Your task to perform on an android device: add a contact Image 0: 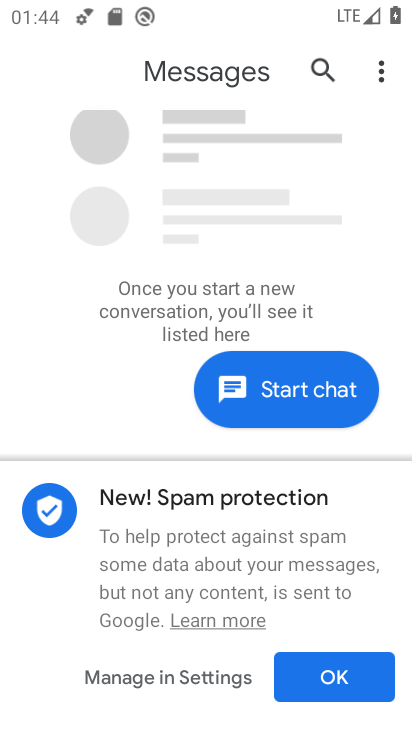
Step 0: press home button
Your task to perform on an android device: add a contact Image 1: 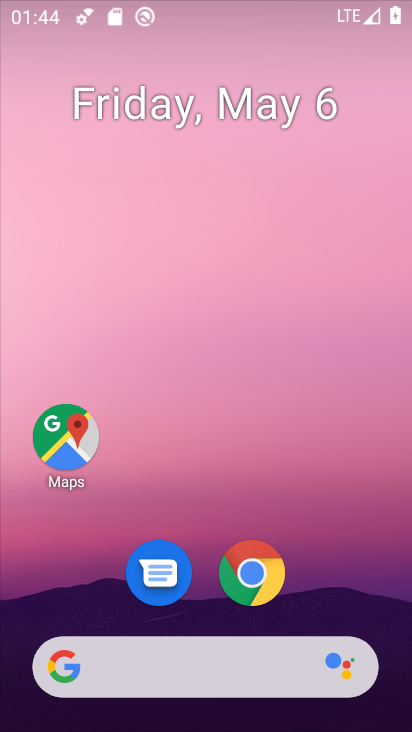
Step 1: drag from (299, 597) to (299, 241)
Your task to perform on an android device: add a contact Image 2: 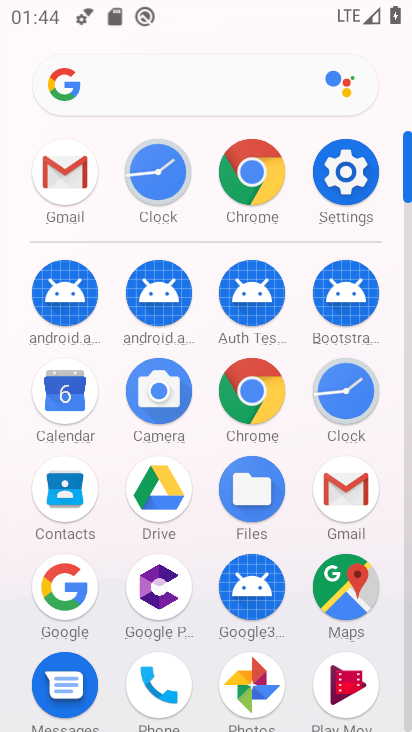
Step 2: click (149, 685)
Your task to perform on an android device: add a contact Image 3: 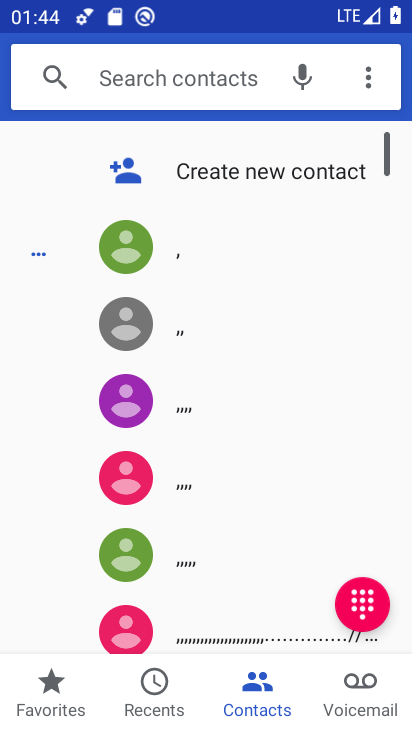
Step 3: click (246, 169)
Your task to perform on an android device: add a contact Image 4: 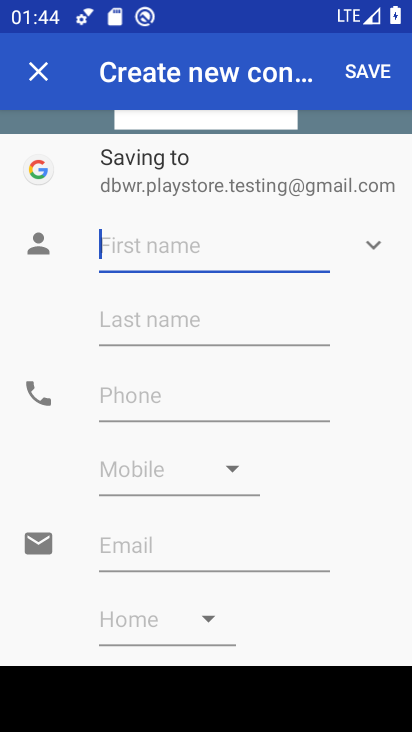
Step 4: click (195, 247)
Your task to perform on an android device: add a contact Image 5: 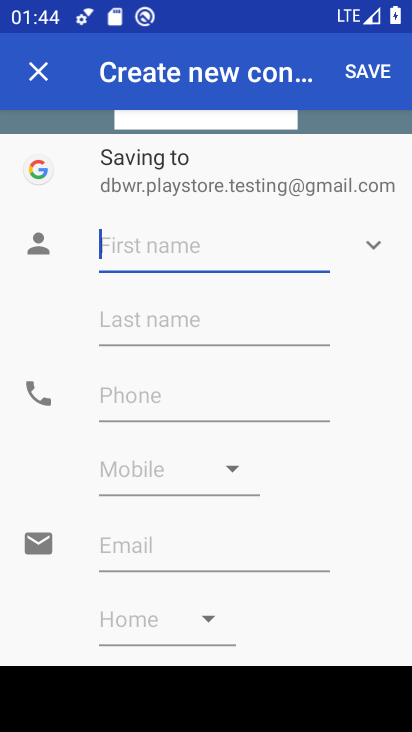
Step 5: type "gfgffggfgfgff"
Your task to perform on an android device: add a contact Image 6: 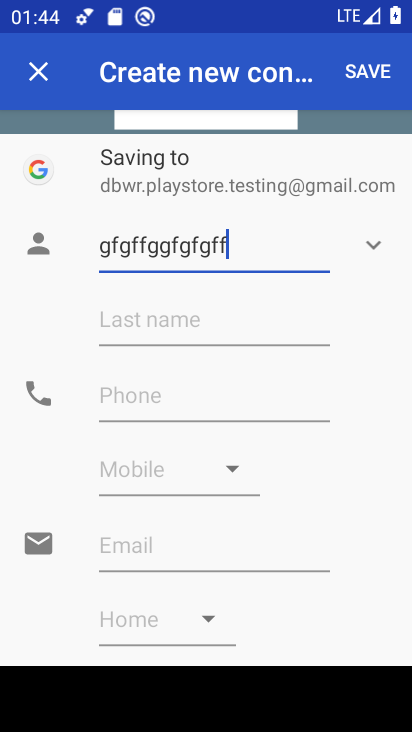
Step 6: click (235, 303)
Your task to perform on an android device: add a contact Image 7: 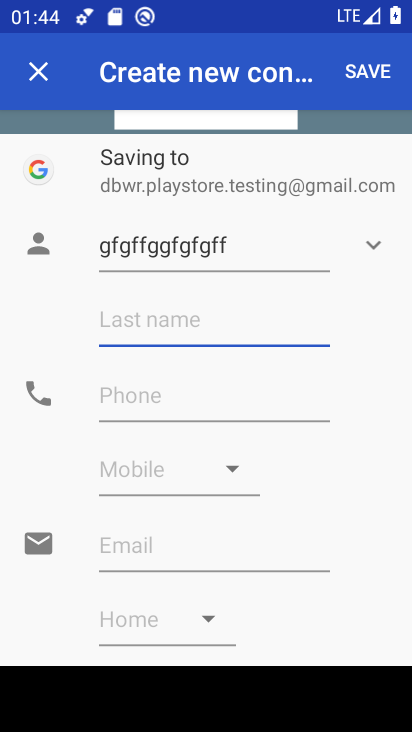
Step 7: click (155, 413)
Your task to perform on an android device: add a contact Image 8: 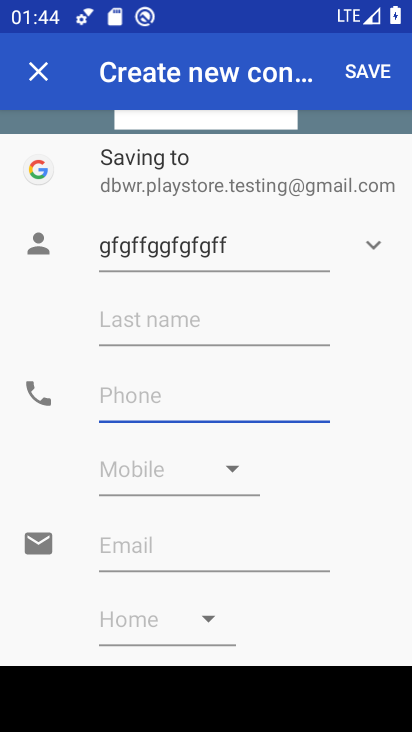
Step 8: type "777777777"
Your task to perform on an android device: add a contact Image 9: 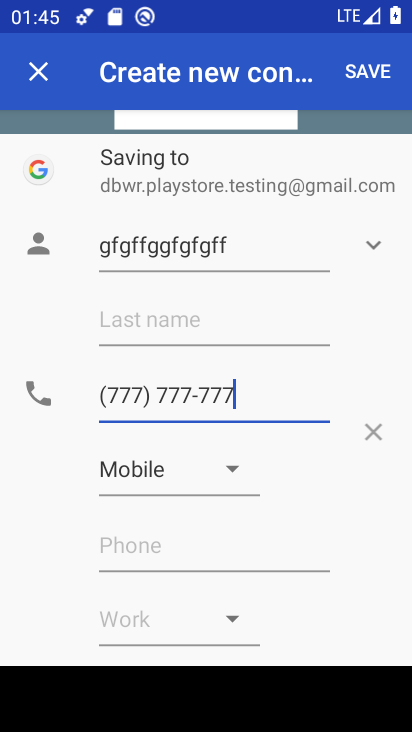
Step 9: click (379, 68)
Your task to perform on an android device: add a contact Image 10: 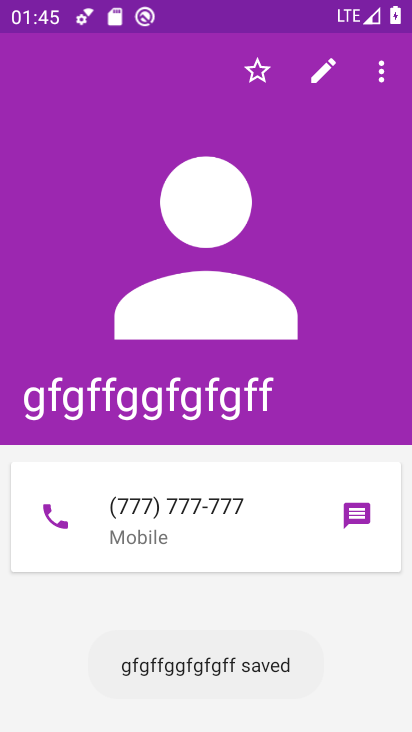
Step 10: task complete